Your task to perform on an android device: change the clock style Image 0: 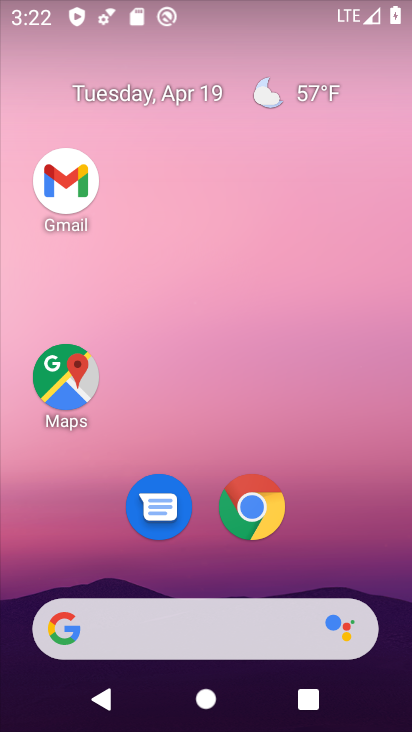
Step 0: drag from (198, 584) to (268, 188)
Your task to perform on an android device: change the clock style Image 1: 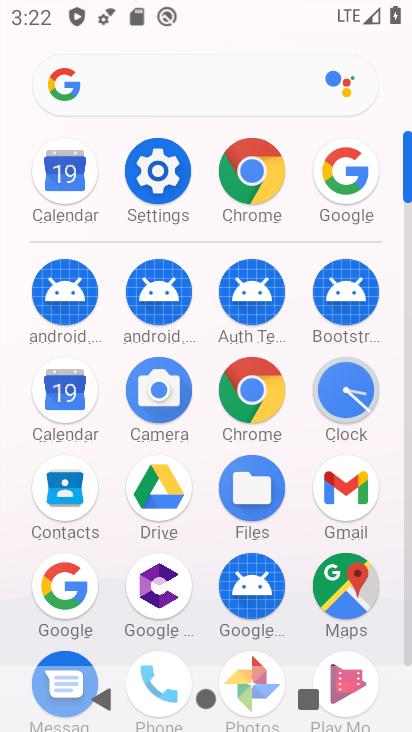
Step 1: click (348, 374)
Your task to perform on an android device: change the clock style Image 2: 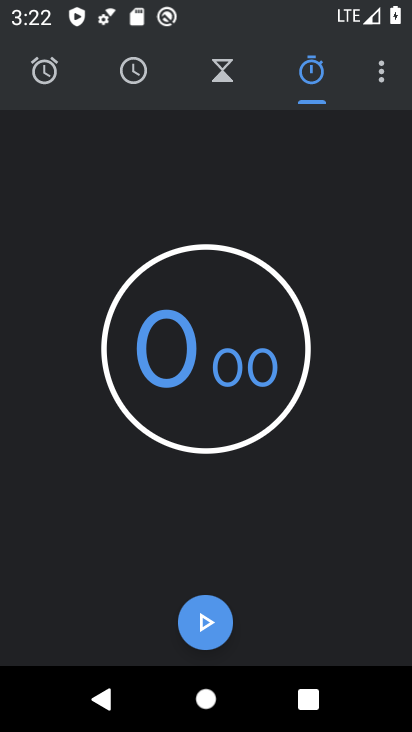
Step 2: click (378, 79)
Your task to perform on an android device: change the clock style Image 3: 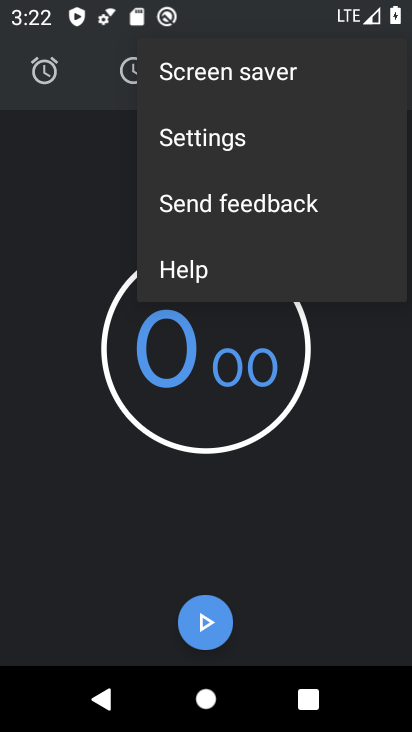
Step 3: click (247, 121)
Your task to perform on an android device: change the clock style Image 4: 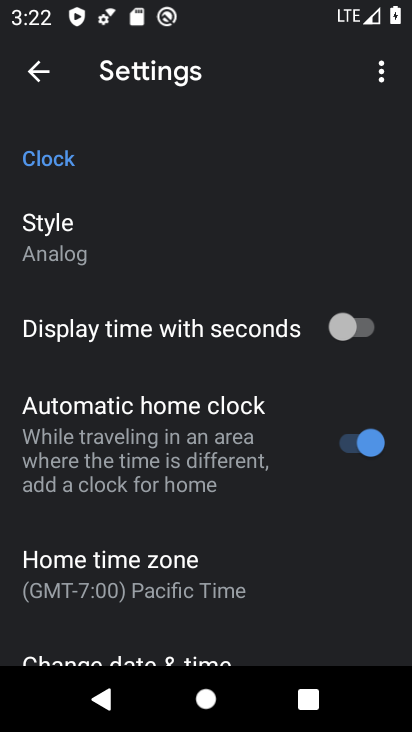
Step 4: click (204, 223)
Your task to perform on an android device: change the clock style Image 5: 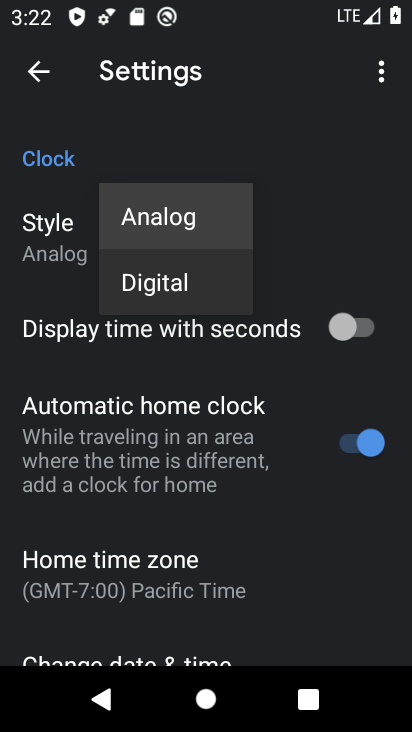
Step 5: click (172, 282)
Your task to perform on an android device: change the clock style Image 6: 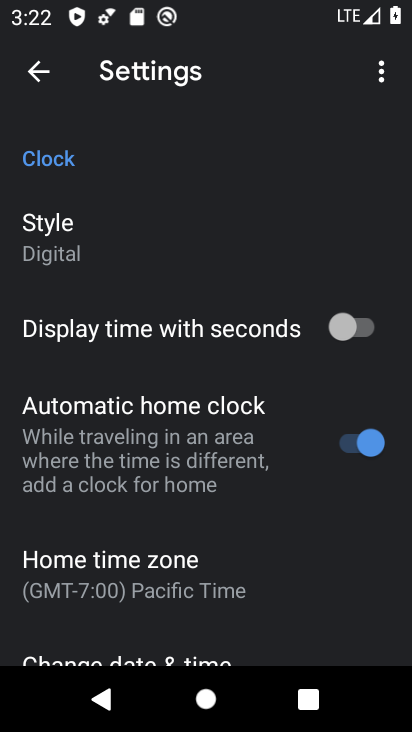
Step 6: task complete